Your task to perform on an android device: open app "Reddit" (install if not already installed) Image 0: 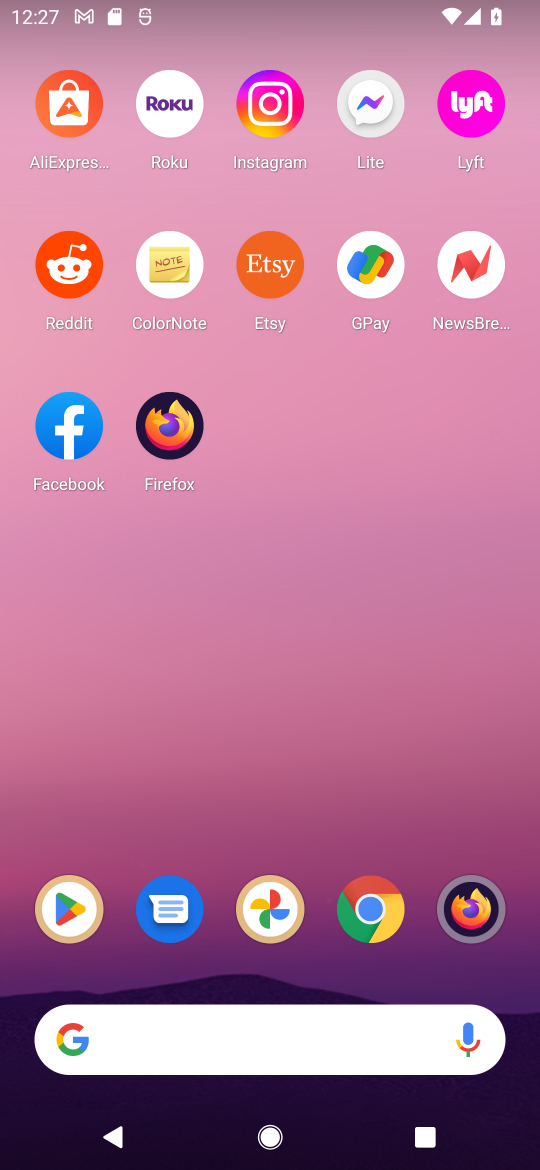
Step 0: click (64, 907)
Your task to perform on an android device: open app "Reddit" (install if not already installed) Image 1: 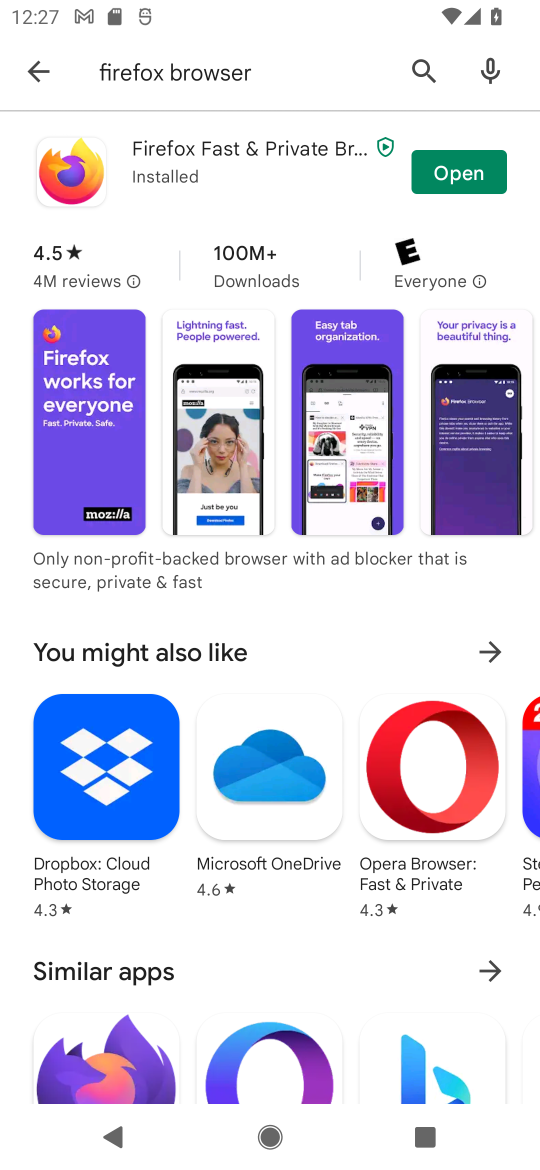
Step 1: click (419, 55)
Your task to perform on an android device: open app "Reddit" (install if not already installed) Image 2: 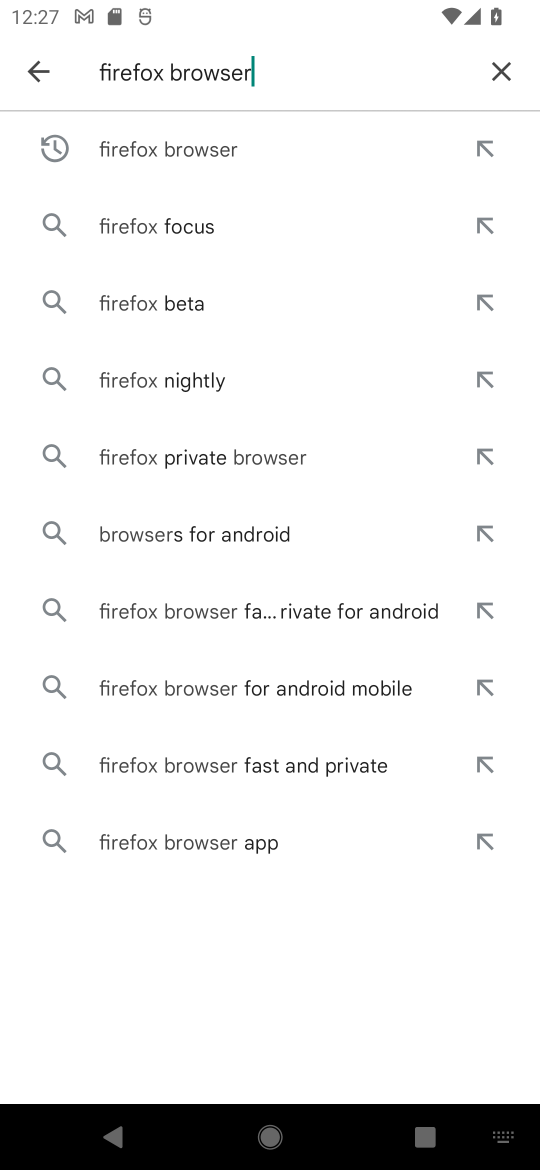
Step 2: click (502, 69)
Your task to perform on an android device: open app "Reddit" (install if not already installed) Image 3: 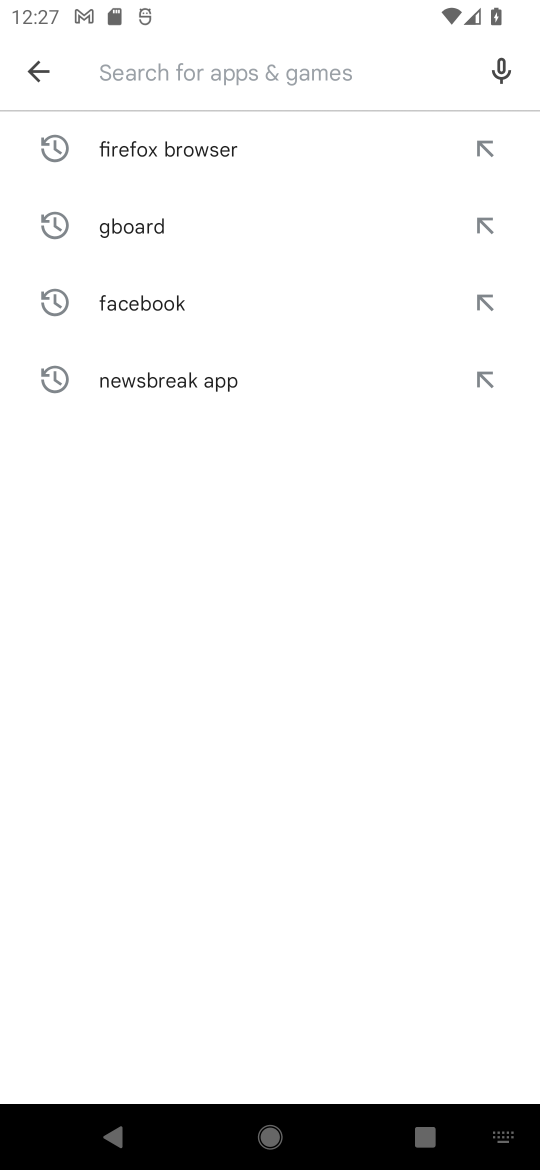
Step 3: type "Reddit"
Your task to perform on an android device: open app "Reddit" (install if not already installed) Image 4: 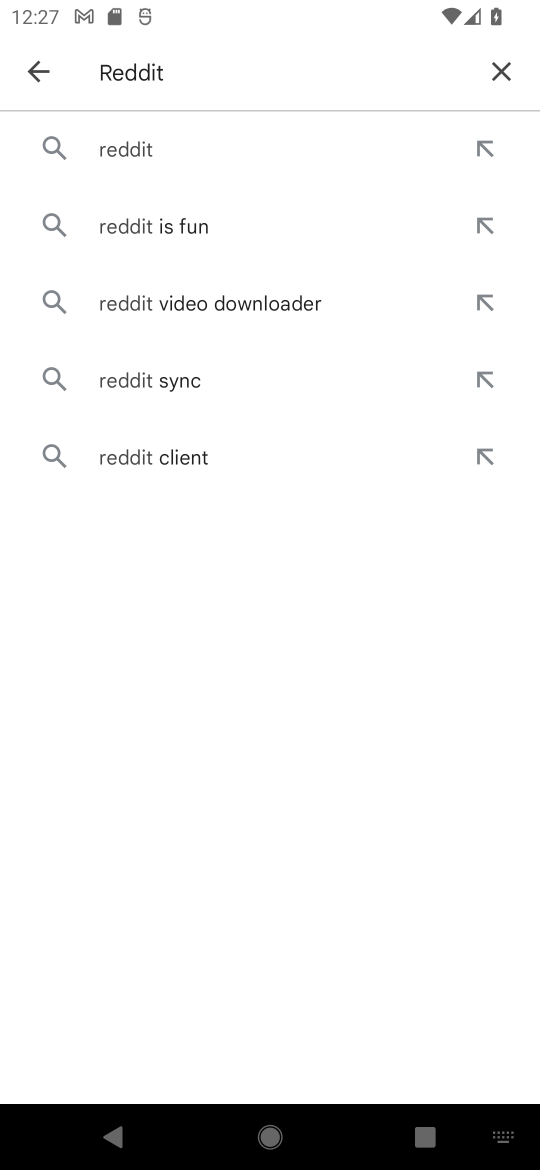
Step 4: click (145, 142)
Your task to perform on an android device: open app "Reddit" (install if not already installed) Image 5: 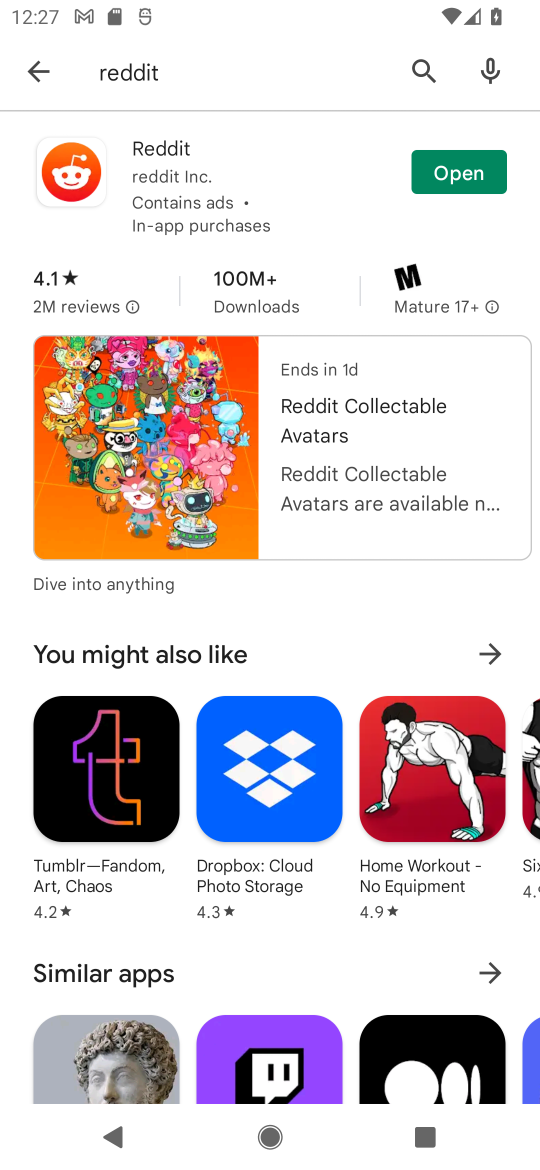
Step 5: click (447, 168)
Your task to perform on an android device: open app "Reddit" (install if not already installed) Image 6: 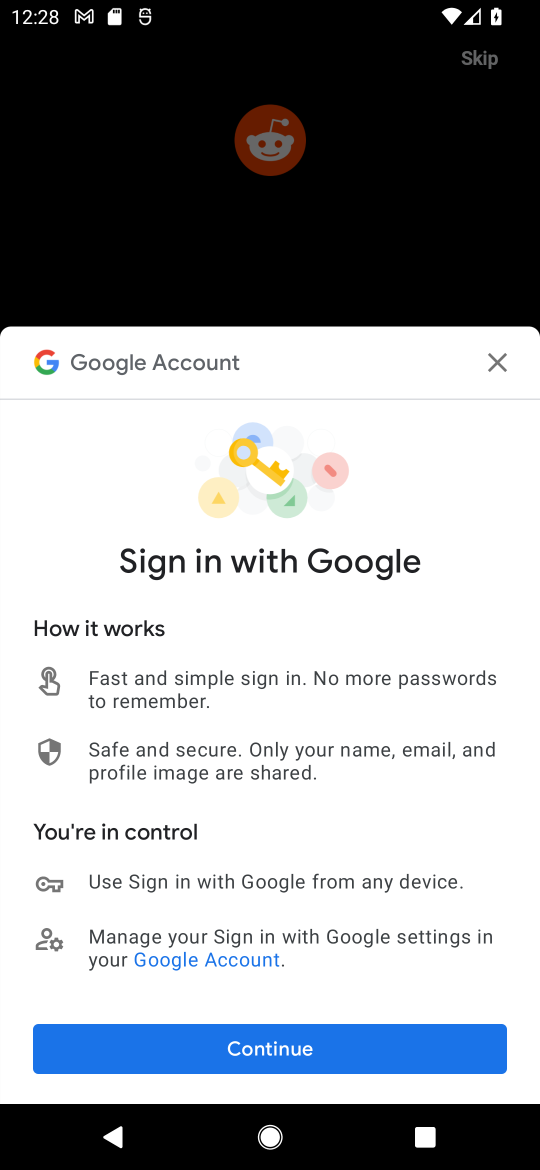
Step 6: click (504, 353)
Your task to perform on an android device: open app "Reddit" (install if not already installed) Image 7: 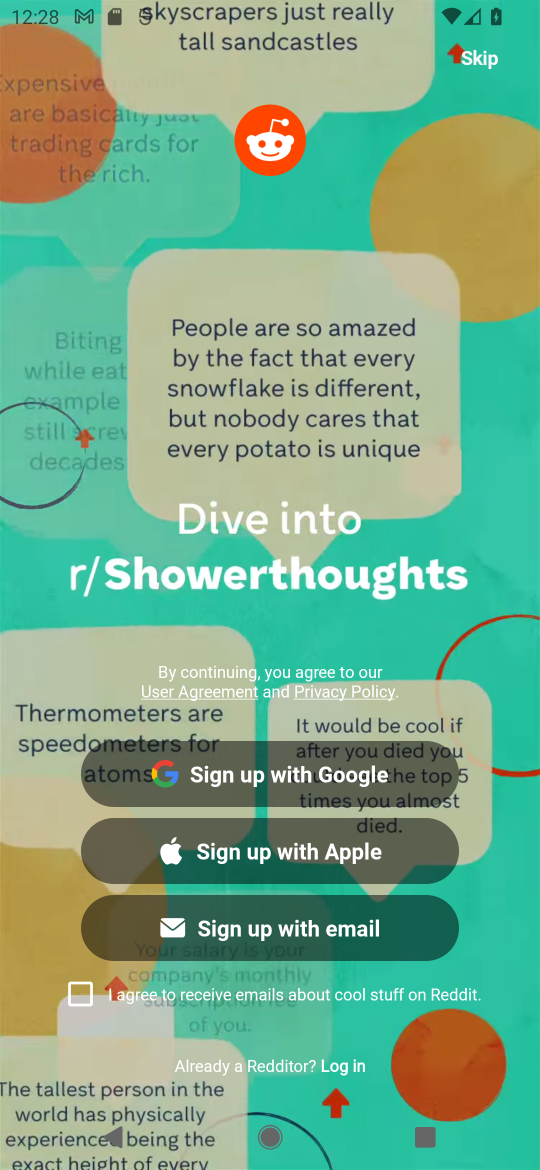
Step 7: task complete